Your task to perform on an android device: Open privacy settings Image 0: 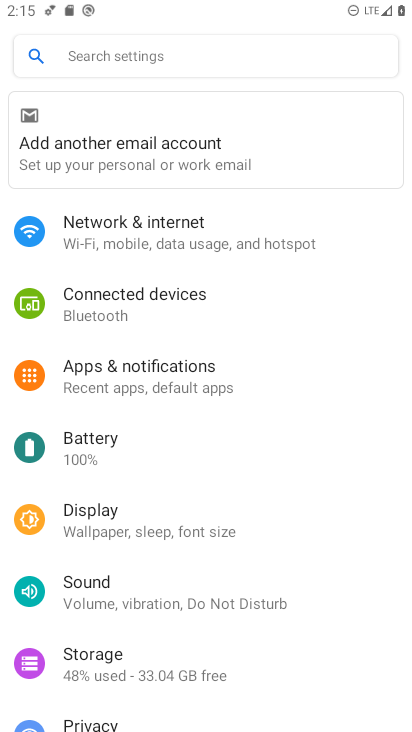
Step 0: press home button
Your task to perform on an android device: Open privacy settings Image 1: 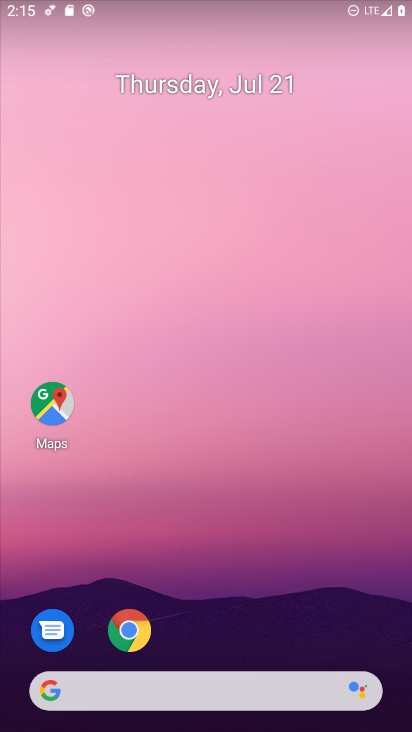
Step 1: drag from (317, 535) to (295, 75)
Your task to perform on an android device: Open privacy settings Image 2: 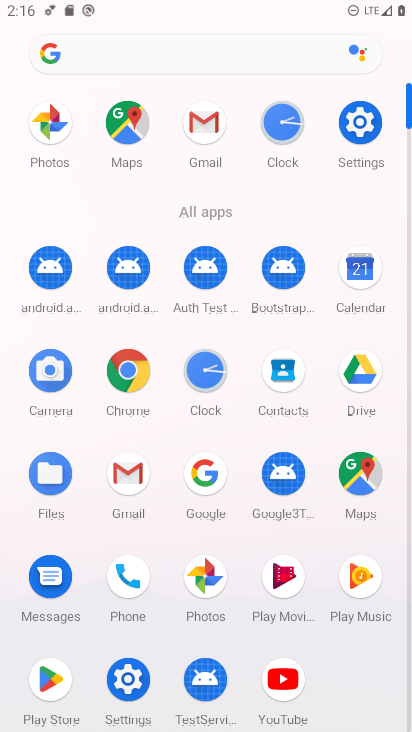
Step 2: click (140, 691)
Your task to perform on an android device: Open privacy settings Image 3: 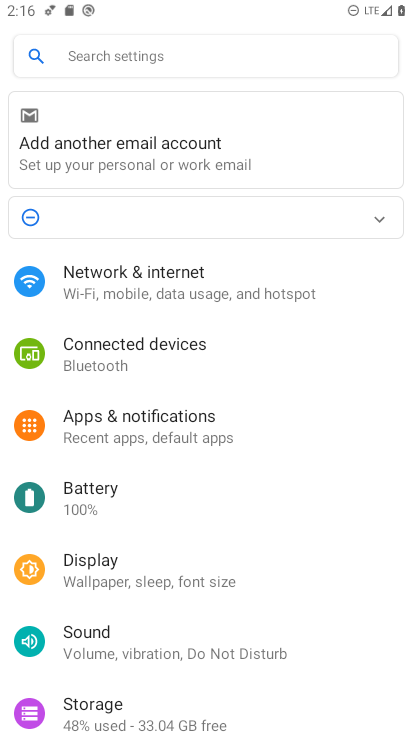
Step 3: drag from (173, 658) to (151, 395)
Your task to perform on an android device: Open privacy settings Image 4: 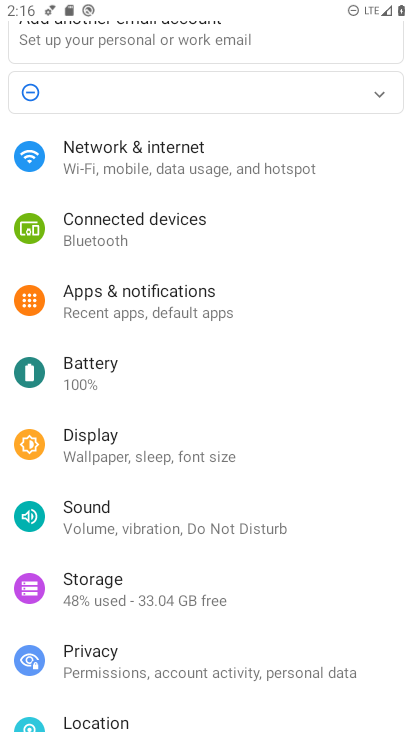
Step 4: click (107, 648)
Your task to perform on an android device: Open privacy settings Image 5: 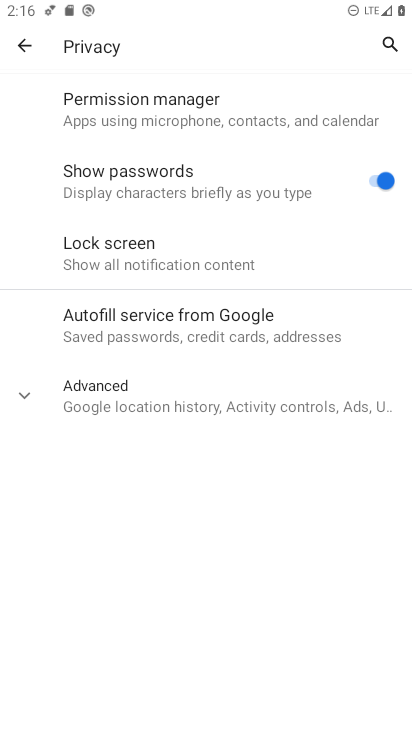
Step 5: task complete